Your task to perform on an android device: Toggle the flashlight Image 0: 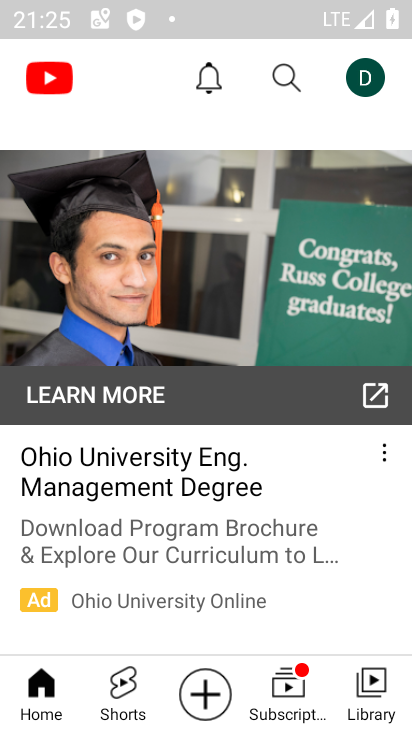
Step 0: press home button
Your task to perform on an android device: Toggle the flashlight Image 1: 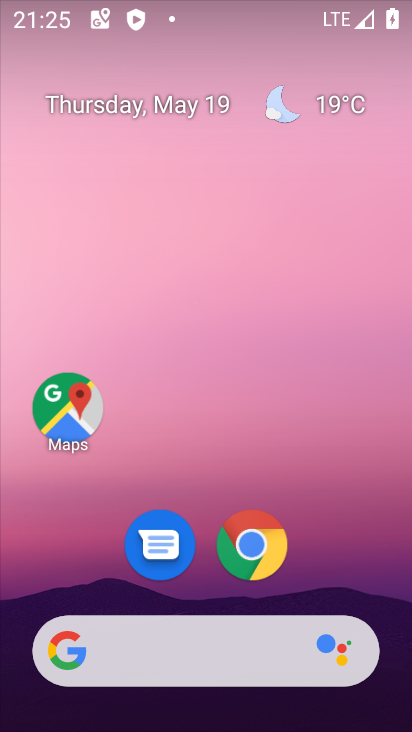
Step 1: drag from (336, 588) to (406, 0)
Your task to perform on an android device: Toggle the flashlight Image 2: 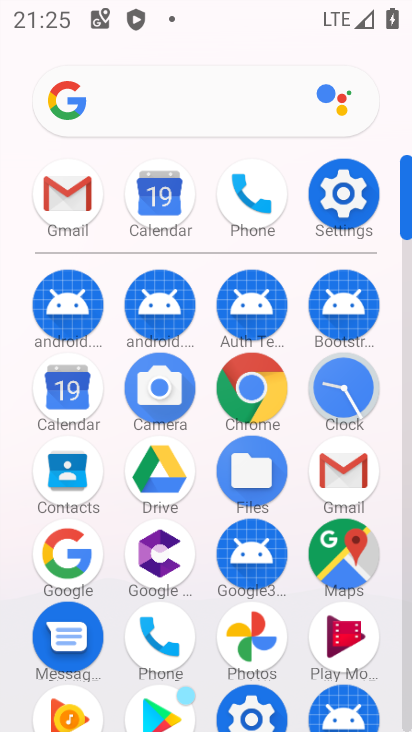
Step 2: click (328, 206)
Your task to perform on an android device: Toggle the flashlight Image 3: 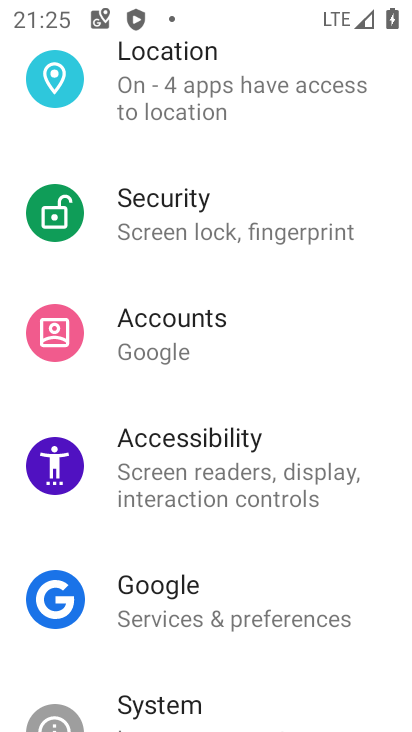
Step 3: task complete